Your task to perform on an android device: Open CNN.com Image 0: 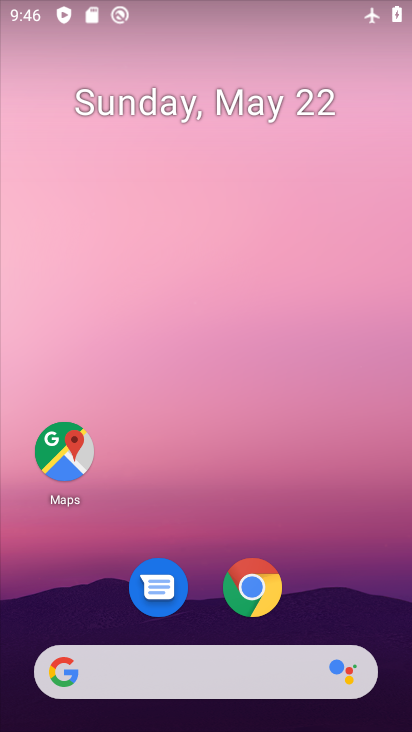
Step 0: click (204, 686)
Your task to perform on an android device: Open CNN.com Image 1: 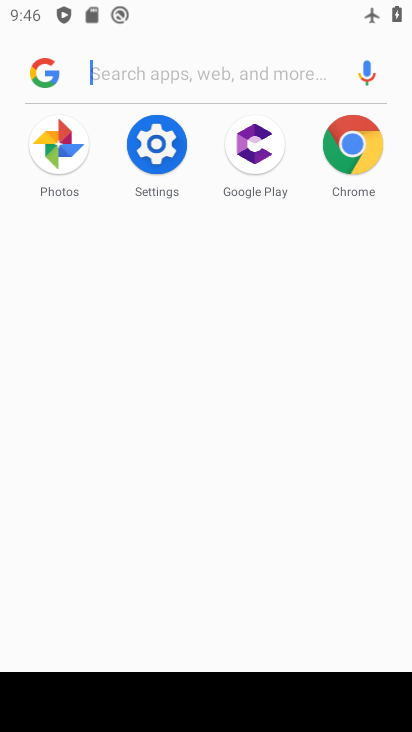
Step 1: type "cnn.com"
Your task to perform on an android device: Open CNN.com Image 2: 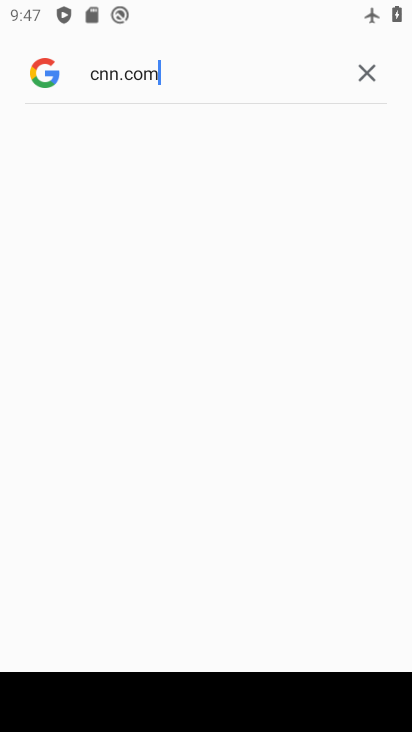
Step 2: task complete